Your task to perform on an android device: check android version Image 0: 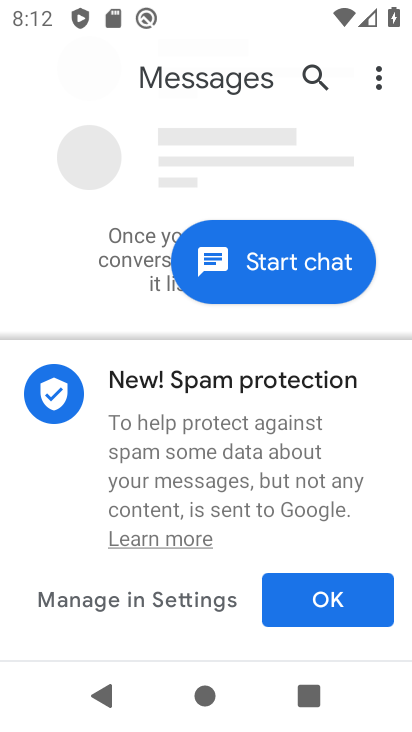
Step 0: press home button
Your task to perform on an android device: check android version Image 1: 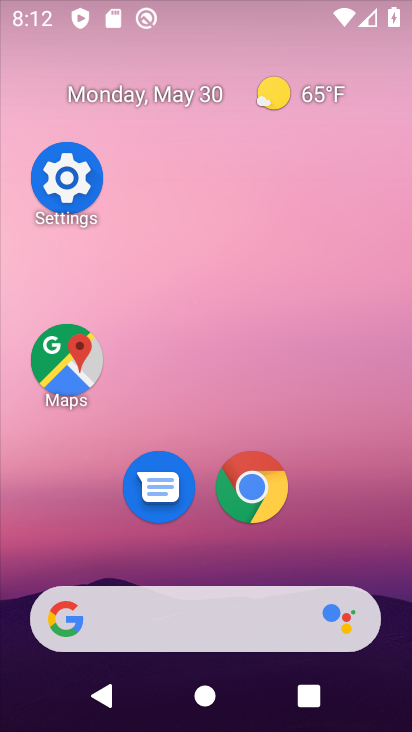
Step 1: click (79, 182)
Your task to perform on an android device: check android version Image 2: 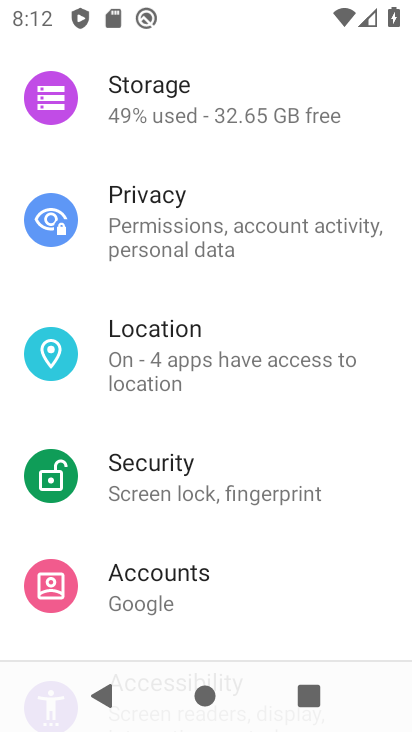
Step 2: drag from (244, 586) to (287, 153)
Your task to perform on an android device: check android version Image 3: 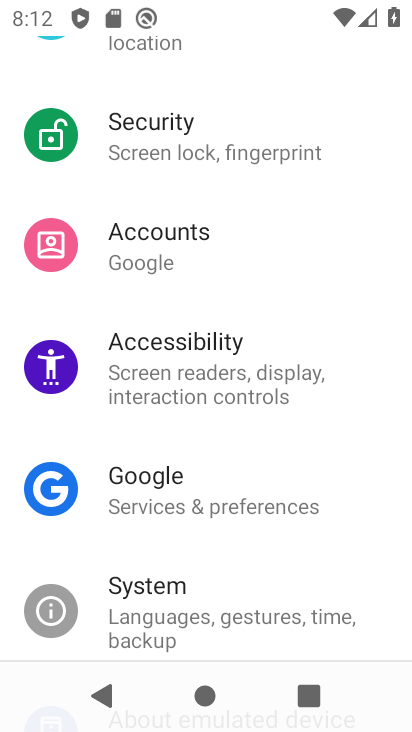
Step 3: drag from (264, 581) to (270, 233)
Your task to perform on an android device: check android version Image 4: 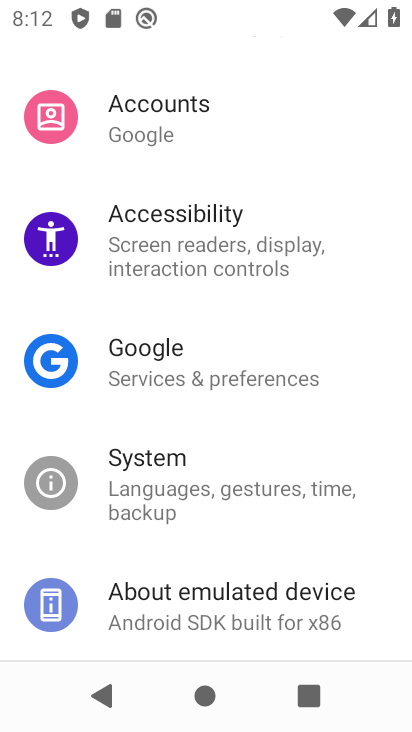
Step 4: click (171, 606)
Your task to perform on an android device: check android version Image 5: 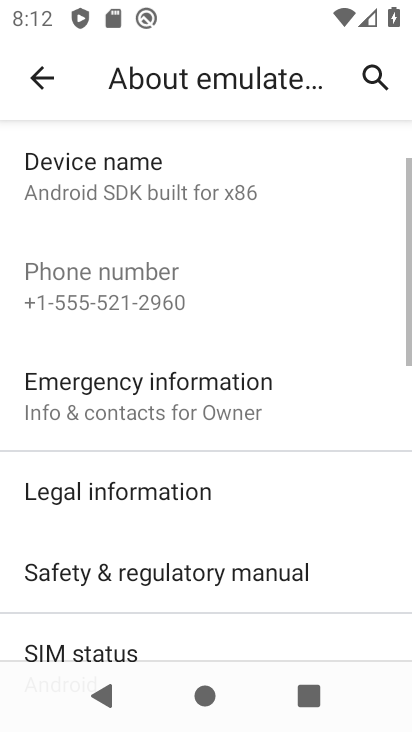
Step 5: drag from (180, 559) to (284, 86)
Your task to perform on an android device: check android version Image 6: 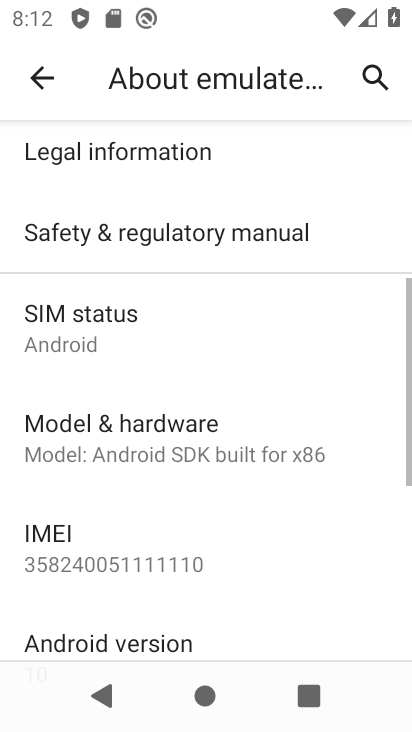
Step 6: drag from (176, 535) to (218, 212)
Your task to perform on an android device: check android version Image 7: 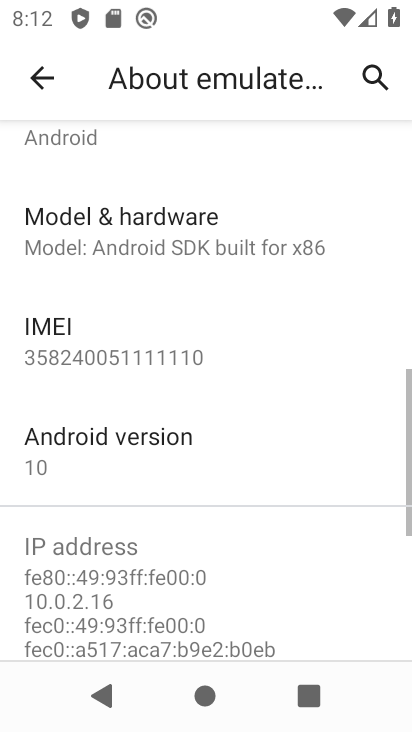
Step 7: click (174, 474)
Your task to perform on an android device: check android version Image 8: 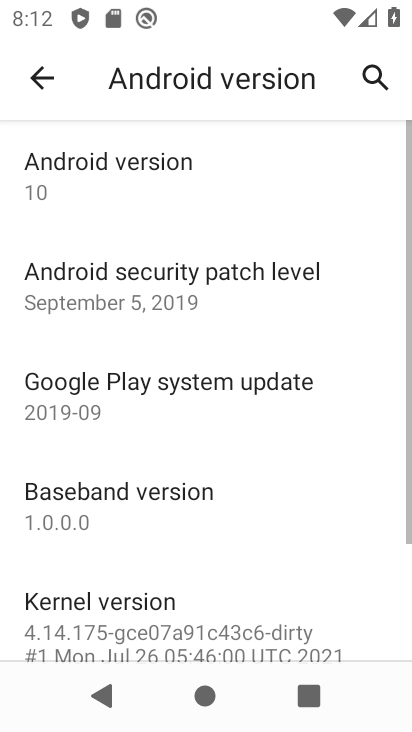
Step 8: click (196, 173)
Your task to perform on an android device: check android version Image 9: 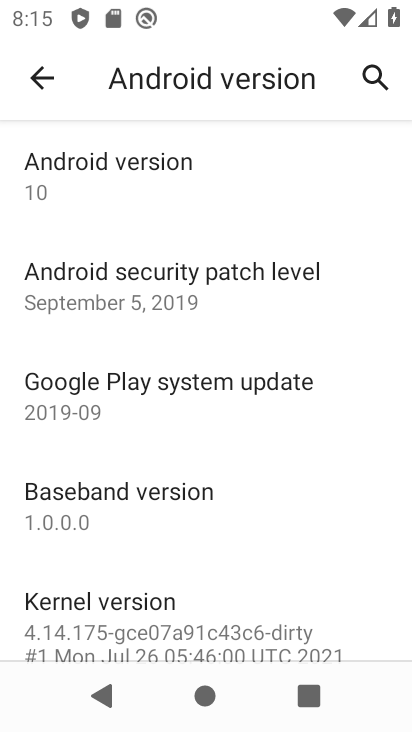
Step 9: task complete